Your task to perform on an android device: Search for hotels in Mexico city Image 0: 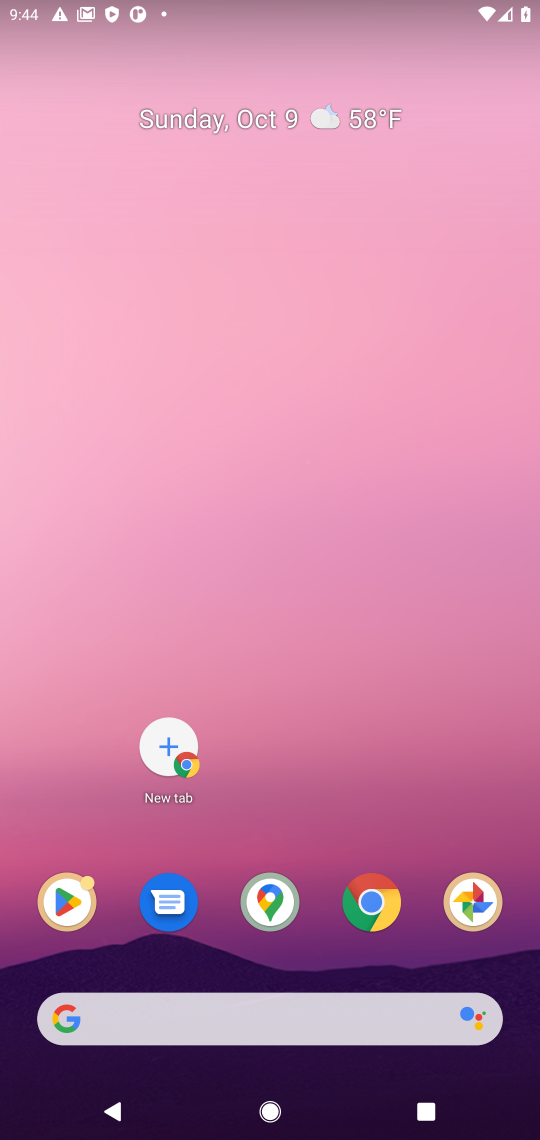
Step 0: click (373, 902)
Your task to perform on an android device: Search for hotels in Mexico city Image 1: 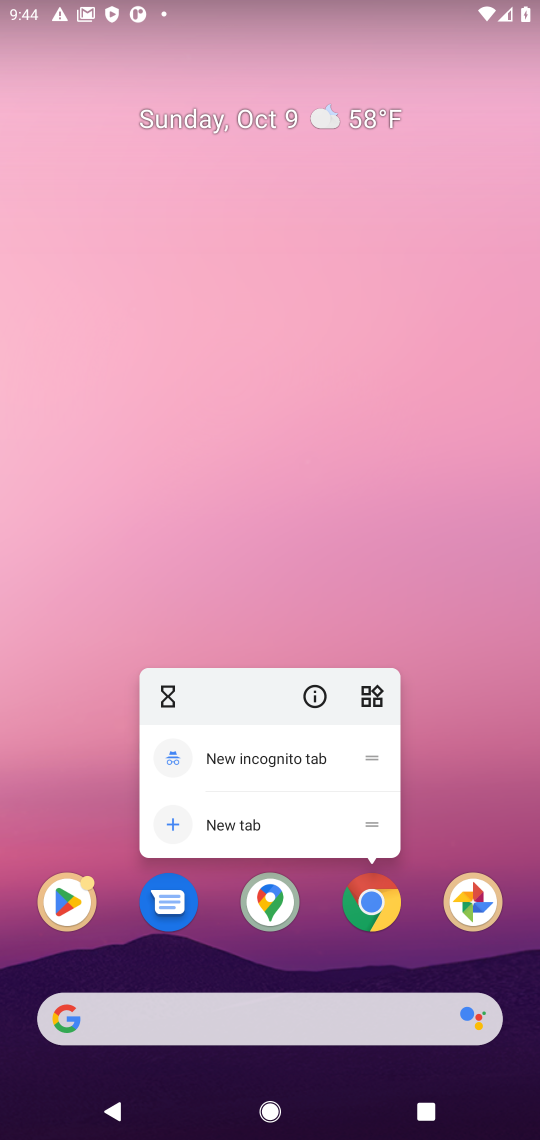
Step 1: click (382, 909)
Your task to perform on an android device: Search for hotels in Mexico city Image 2: 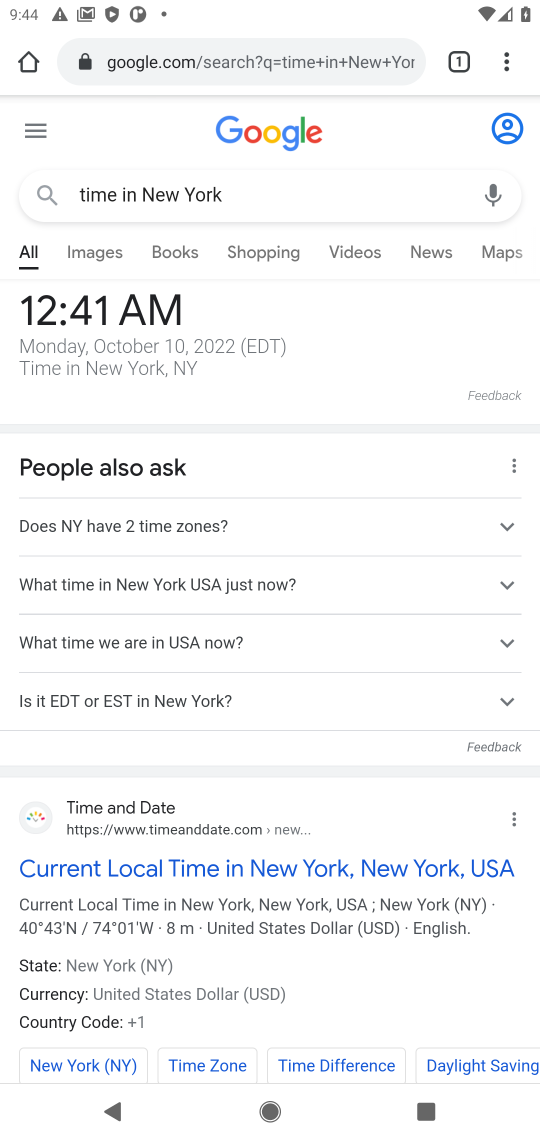
Step 2: click (213, 55)
Your task to perform on an android device: Search for hotels in Mexico city Image 3: 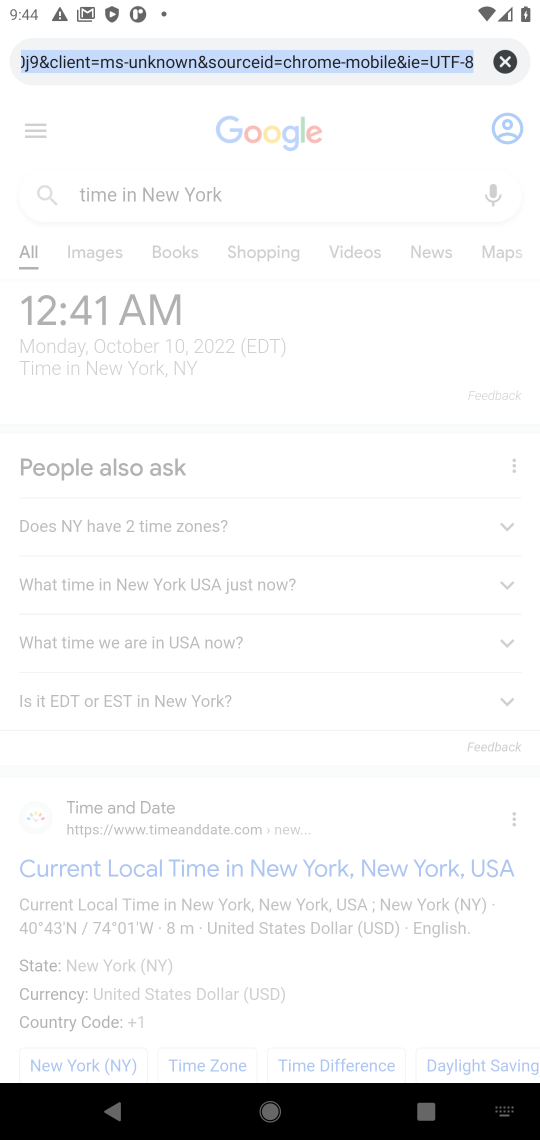
Step 3: type "hotels in Mexico city"
Your task to perform on an android device: Search for hotels in Mexico city Image 4: 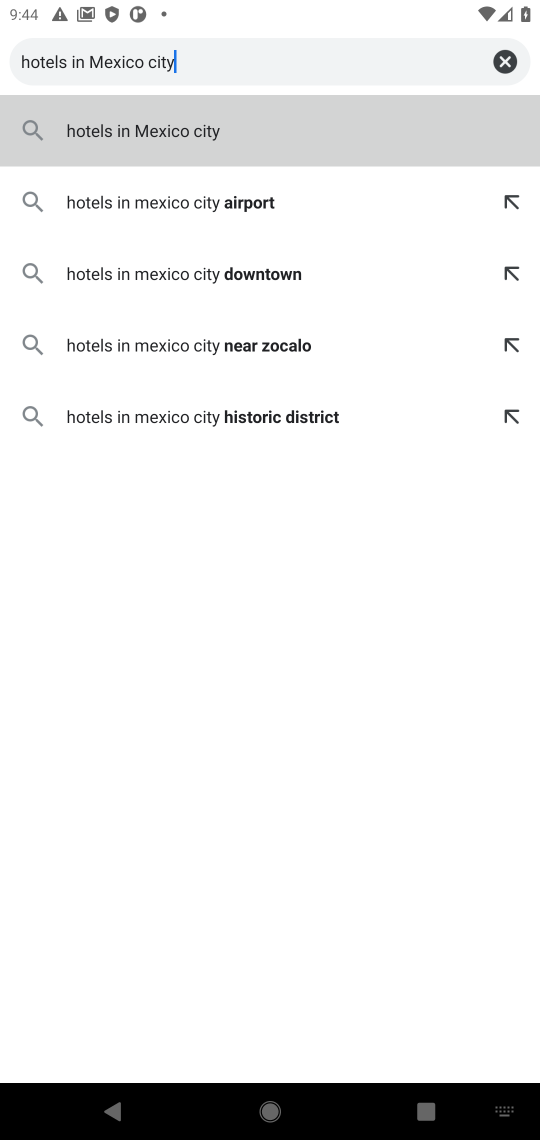
Step 4: type ""
Your task to perform on an android device: Search for hotels in Mexico city Image 5: 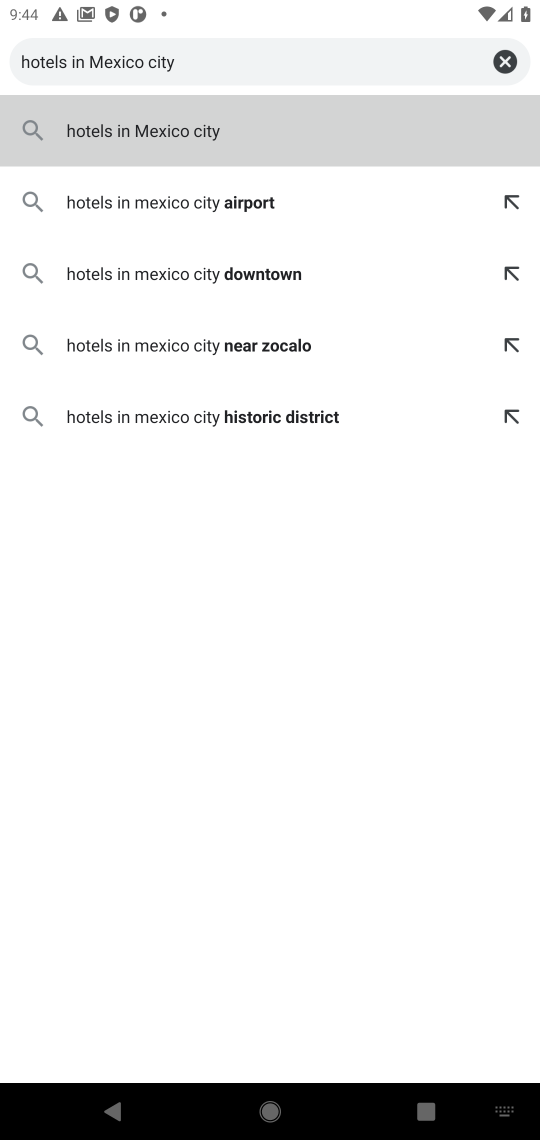
Step 5: click (174, 134)
Your task to perform on an android device: Search for hotels in Mexico city Image 6: 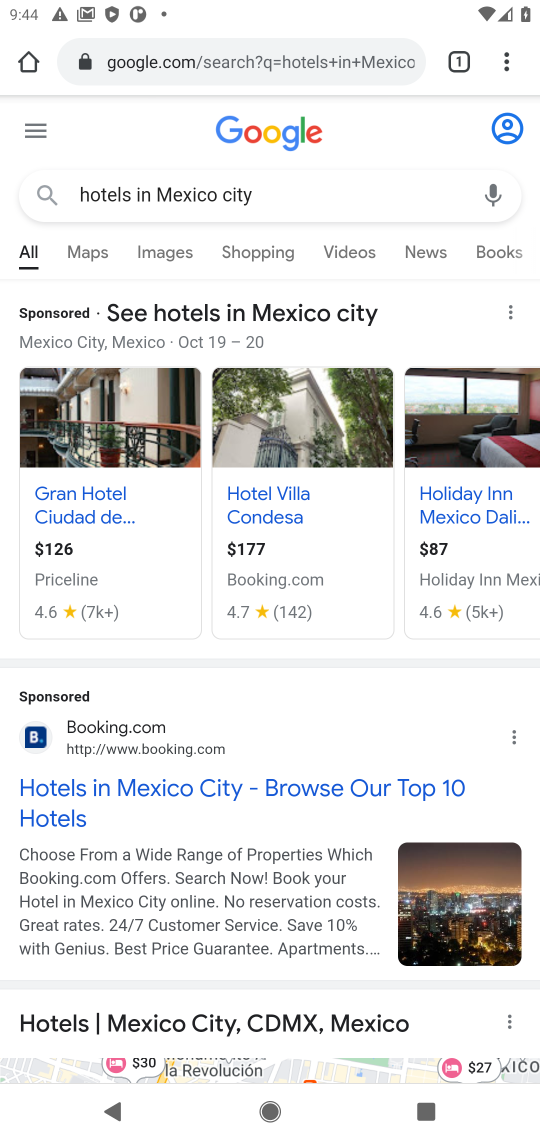
Step 6: drag from (290, 809) to (344, 410)
Your task to perform on an android device: Search for hotels in Mexico city Image 7: 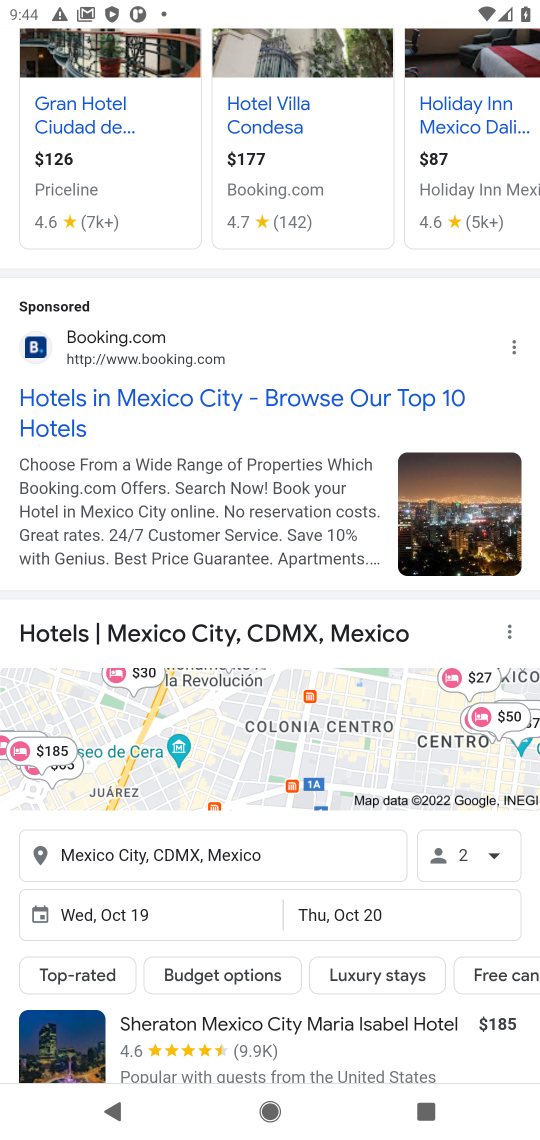
Step 7: drag from (455, 1017) to (523, 411)
Your task to perform on an android device: Search for hotels in Mexico city Image 8: 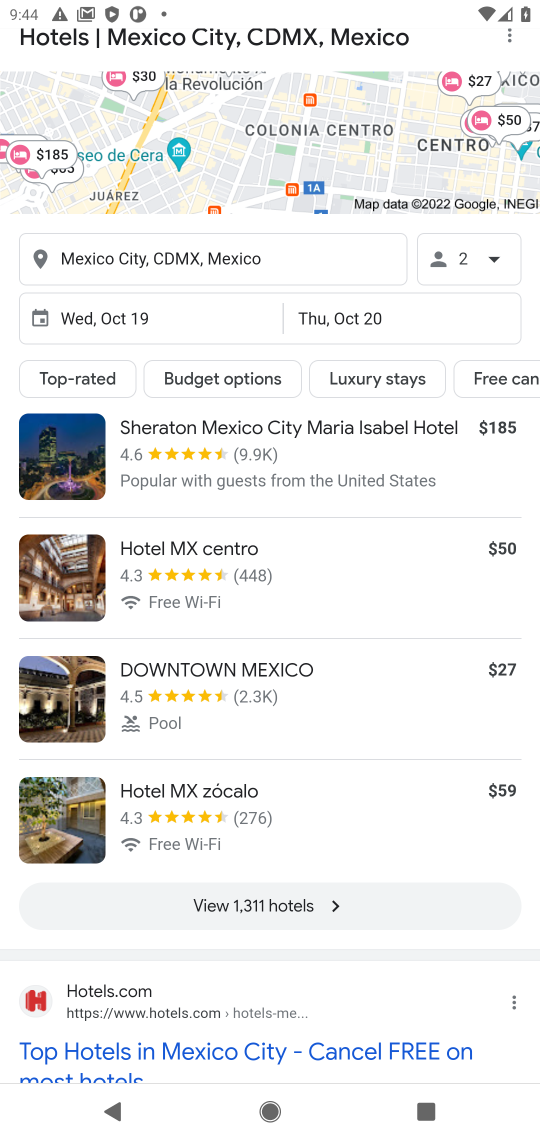
Step 8: click (285, 898)
Your task to perform on an android device: Search for hotels in Mexico city Image 9: 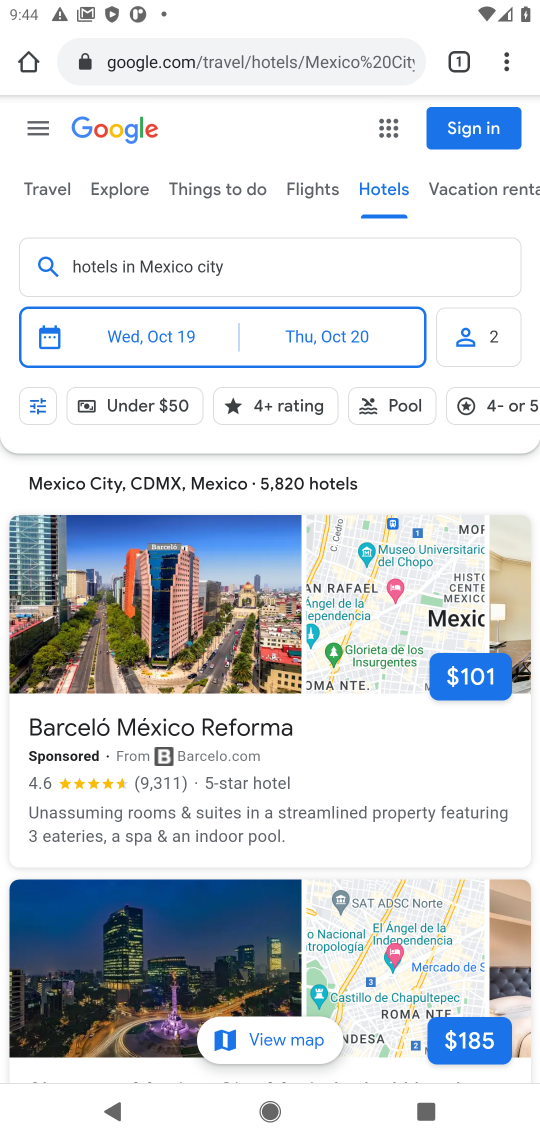
Step 9: task complete